Your task to perform on an android device: open sync settings in chrome Image 0: 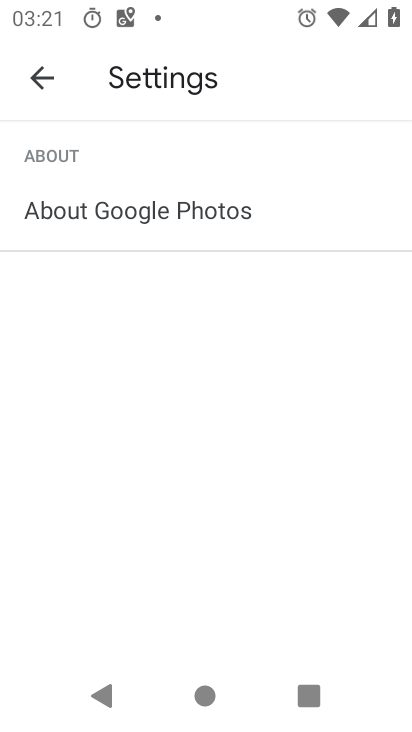
Step 0: press home button
Your task to perform on an android device: open sync settings in chrome Image 1: 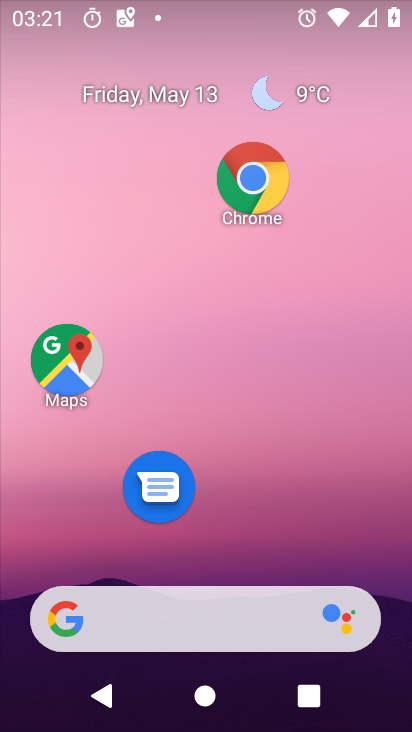
Step 1: drag from (258, 526) to (285, 29)
Your task to perform on an android device: open sync settings in chrome Image 2: 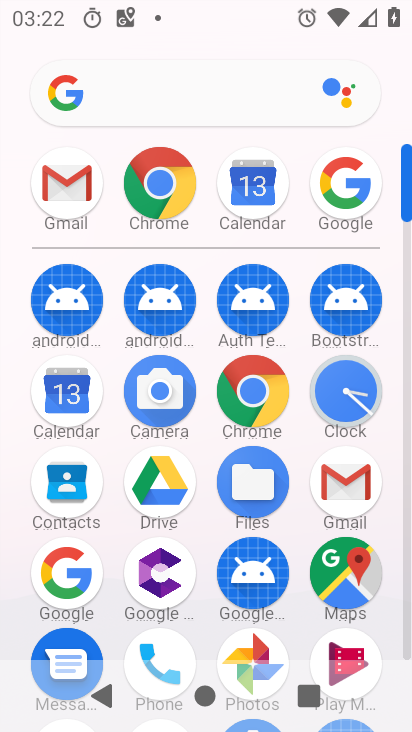
Step 2: click (163, 184)
Your task to perform on an android device: open sync settings in chrome Image 3: 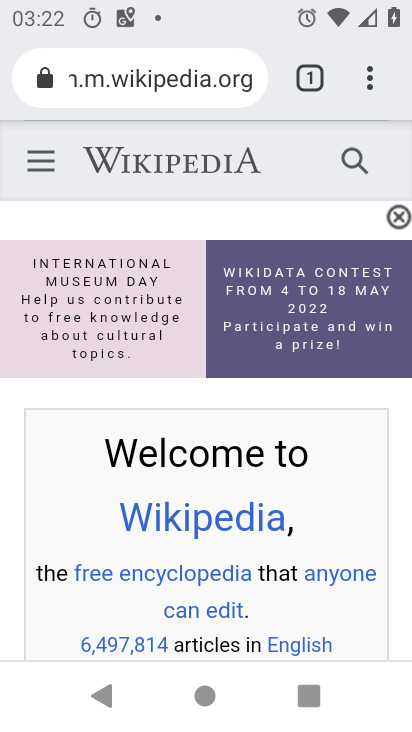
Step 3: click (360, 66)
Your task to perform on an android device: open sync settings in chrome Image 4: 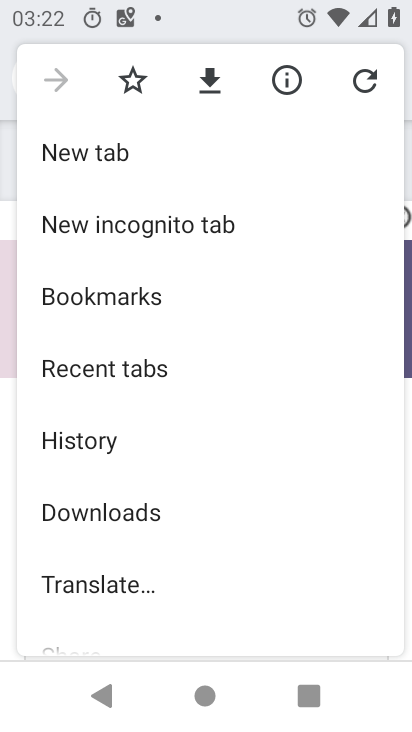
Step 4: drag from (194, 512) to (291, 131)
Your task to perform on an android device: open sync settings in chrome Image 5: 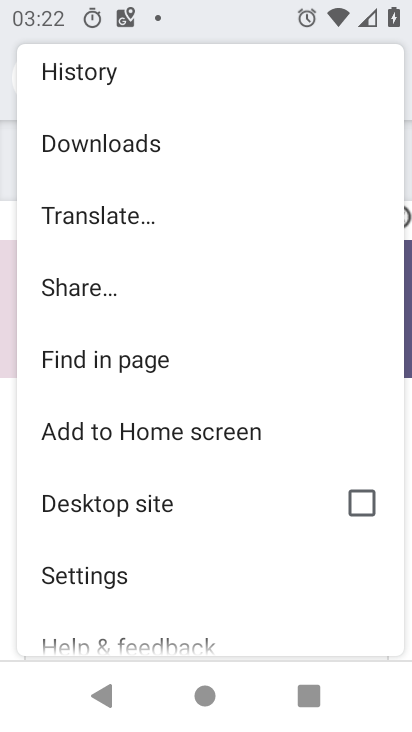
Step 5: click (112, 567)
Your task to perform on an android device: open sync settings in chrome Image 6: 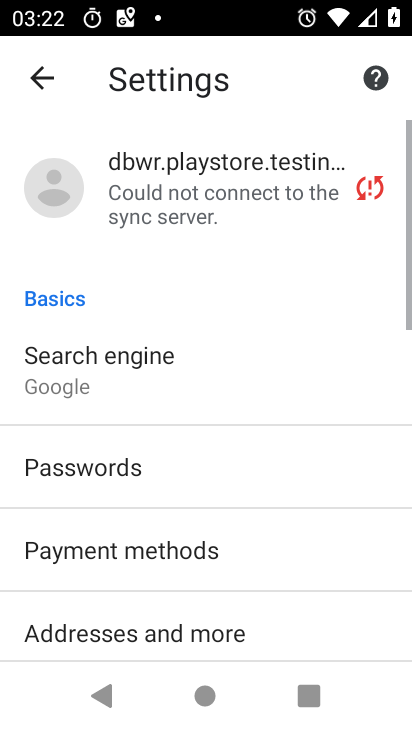
Step 6: drag from (263, 557) to (277, 114)
Your task to perform on an android device: open sync settings in chrome Image 7: 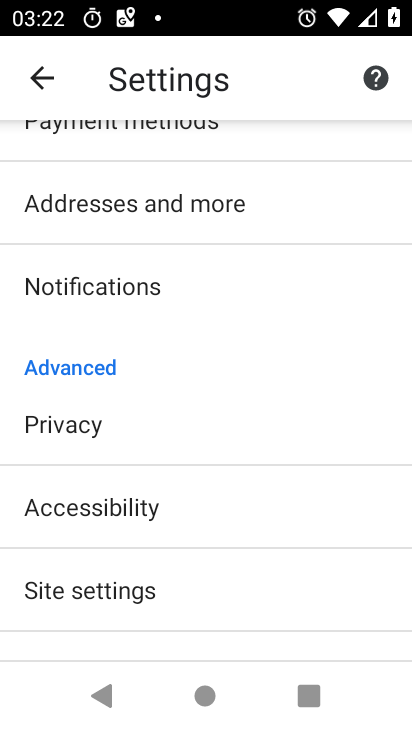
Step 7: click (111, 581)
Your task to perform on an android device: open sync settings in chrome Image 8: 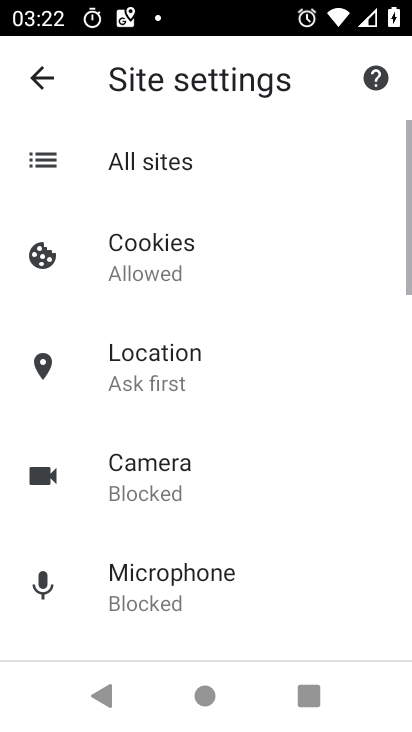
Step 8: drag from (271, 567) to (276, 164)
Your task to perform on an android device: open sync settings in chrome Image 9: 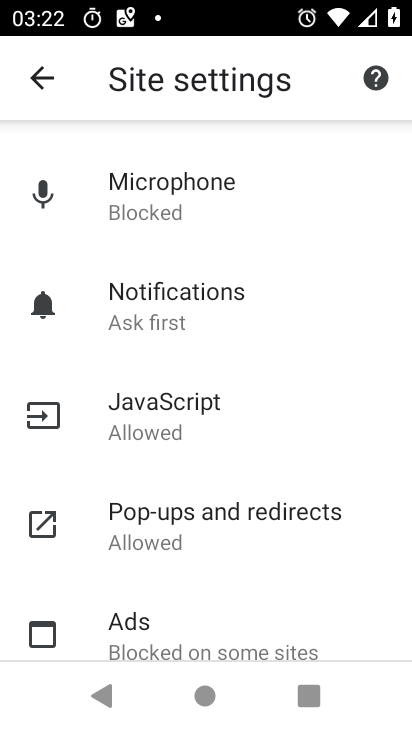
Step 9: drag from (281, 606) to (278, 314)
Your task to perform on an android device: open sync settings in chrome Image 10: 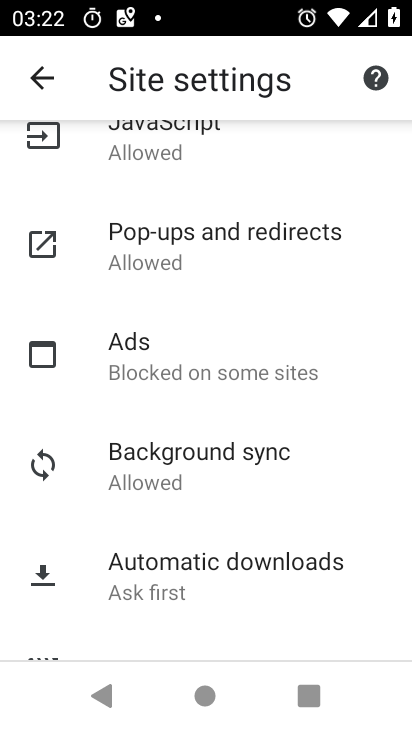
Step 10: click (148, 481)
Your task to perform on an android device: open sync settings in chrome Image 11: 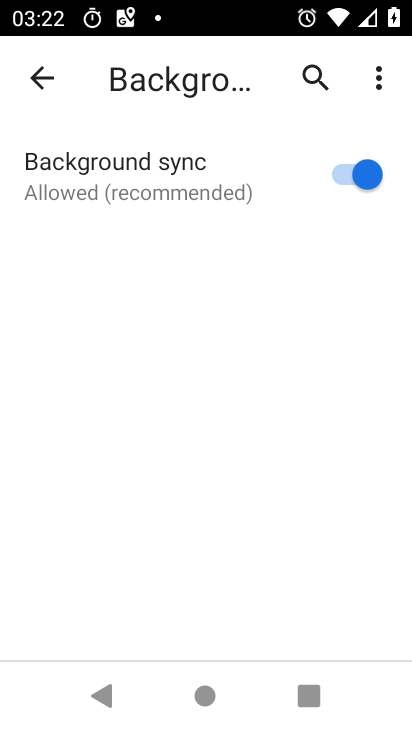
Step 11: task complete